Your task to perform on an android device: Search for vegetarian restaurants on Maps Image 0: 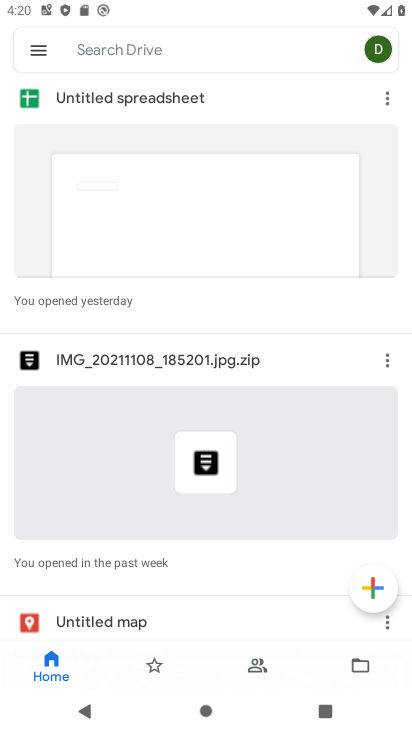
Step 0: press home button
Your task to perform on an android device: Search for vegetarian restaurants on Maps Image 1: 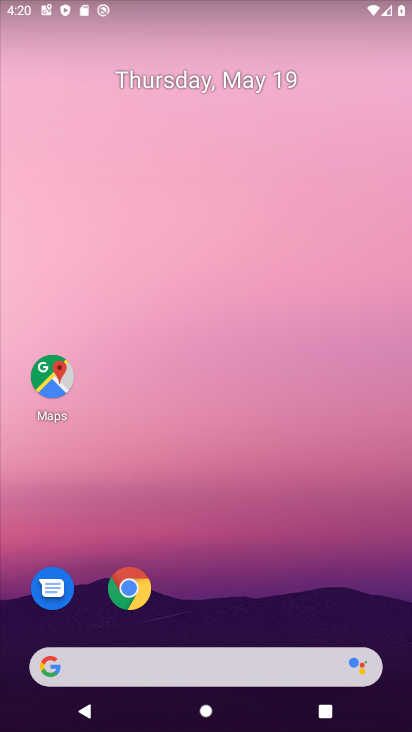
Step 1: click (35, 371)
Your task to perform on an android device: Search for vegetarian restaurants on Maps Image 2: 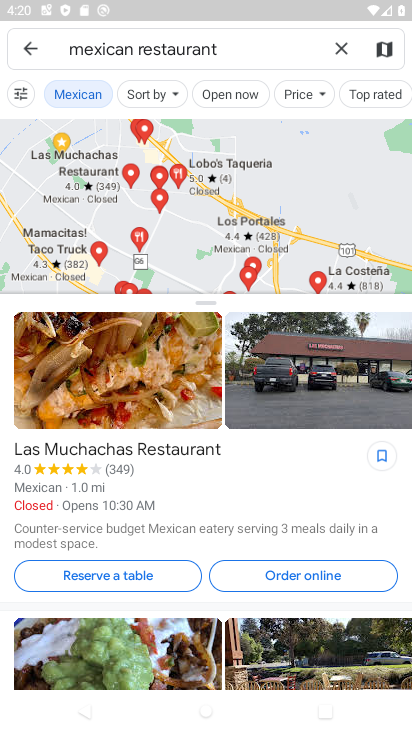
Step 2: click (334, 36)
Your task to perform on an android device: Search for vegetarian restaurants on Maps Image 3: 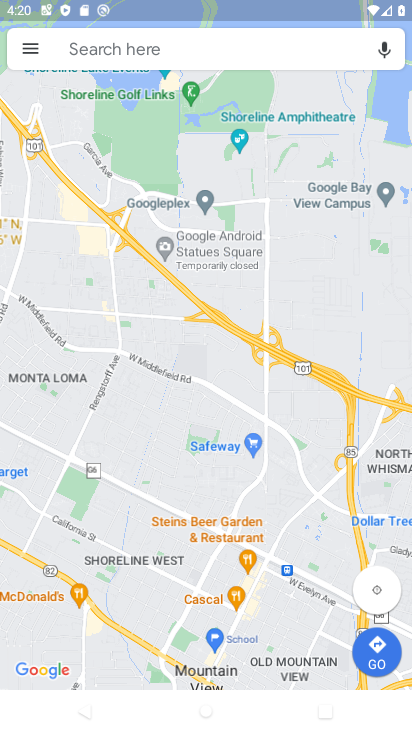
Step 3: click (154, 40)
Your task to perform on an android device: Search for vegetarian restaurants on Maps Image 4: 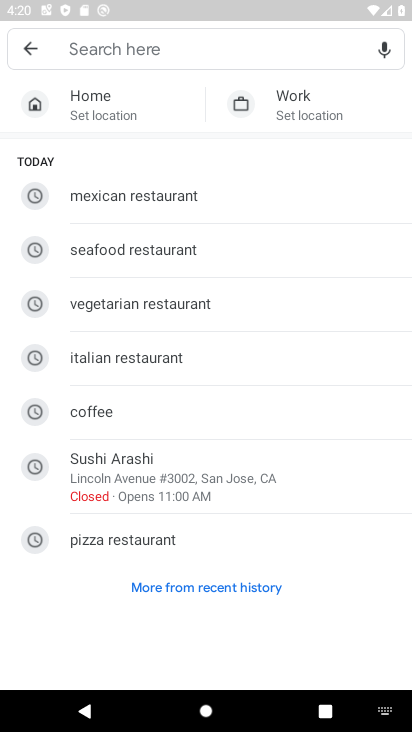
Step 4: click (70, 314)
Your task to perform on an android device: Search for vegetarian restaurants on Maps Image 5: 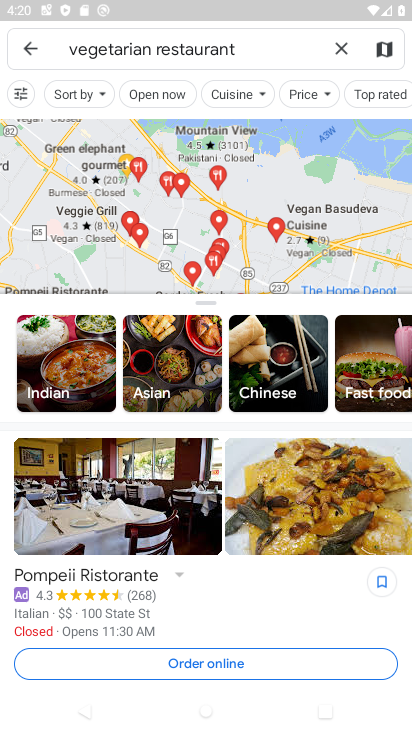
Step 5: task complete